Your task to perform on an android device: toggle show notifications on the lock screen Image 0: 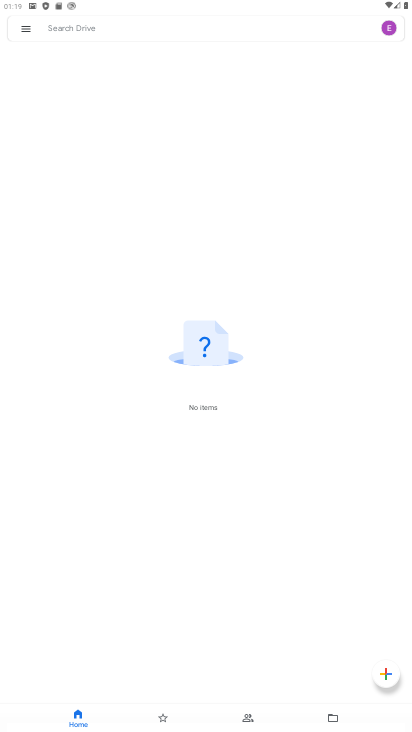
Step 0: press home button
Your task to perform on an android device: toggle show notifications on the lock screen Image 1: 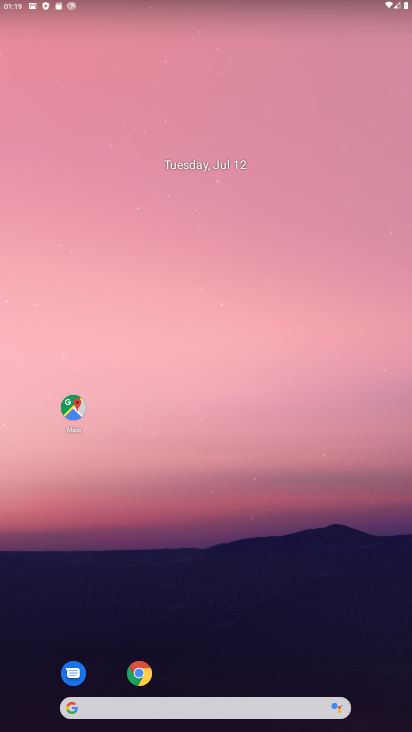
Step 1: drag from (235, 648) to (207, 35)
Your task to perform on an android device: toggle show notifications on the lock screen Image 2: 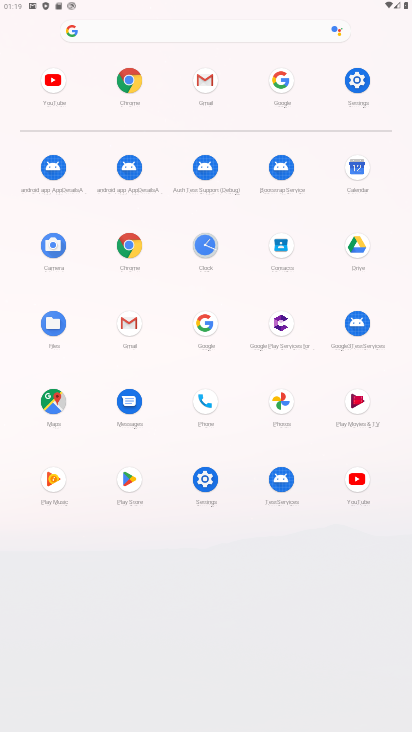
Step 2: click (359, 82)
Your task to perform on an android device: toggle show notifications on the lock screen Image 3: 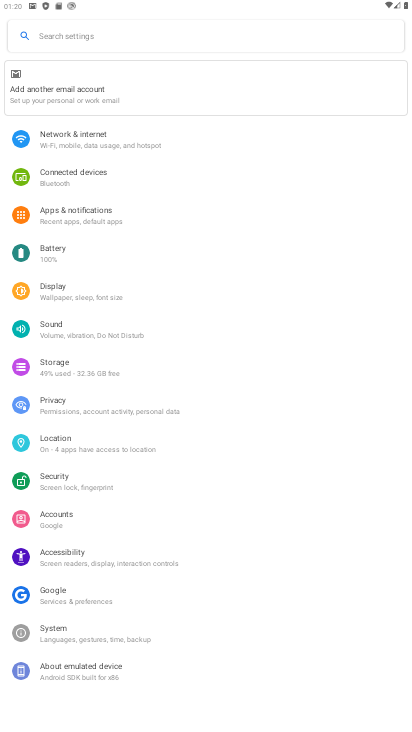
Step 3: click (90, 222)
Your task to perform on an android device: toggle show notifications on the lock screen Image 4: 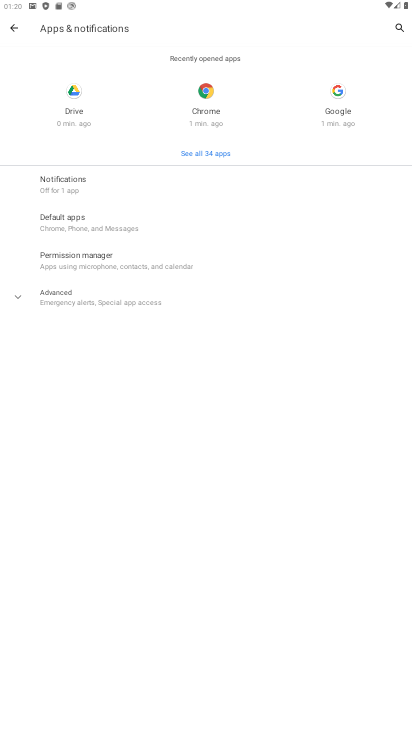
Step 4: click (103, 185)
Your task to perform on an android device: toggle show notifications on the lock screen Image 5: 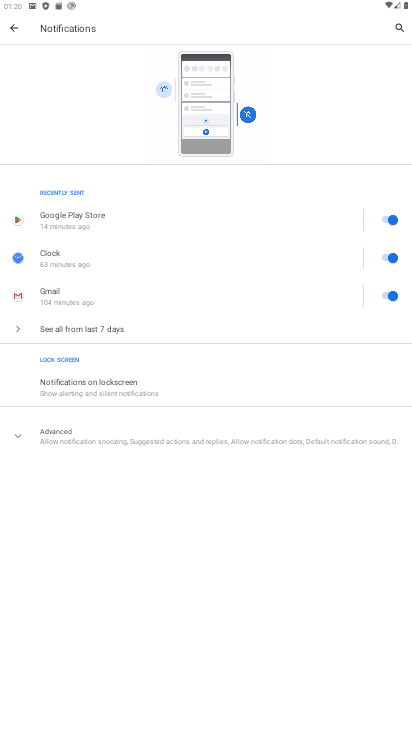
Step 5: click (120, 386)
Your task to perform on an android device: toggle show notifications on the lock screen Image 6: 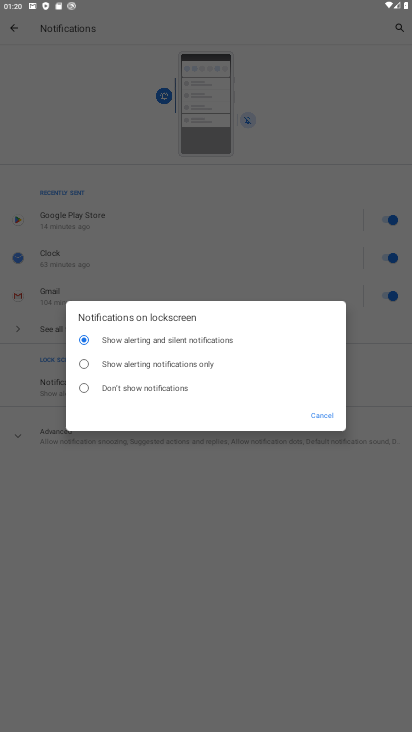
Step 6: click (319, 414)
Your task to perform on an android device: toggle show notifications on the lock screen Image 7: 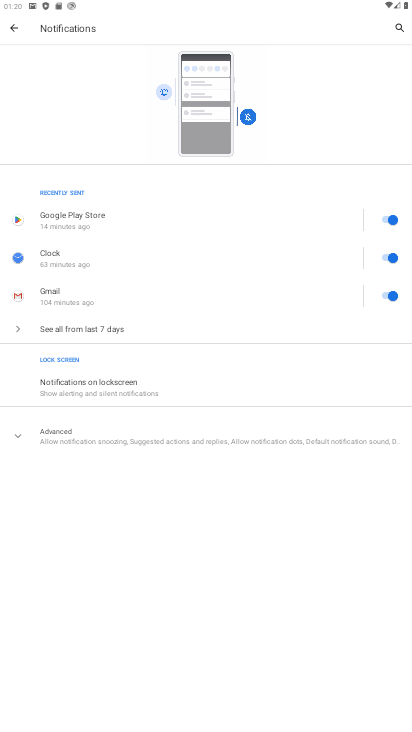
Step 7: click (95, 388)
Your task to perform on an android device: toggle show notifications on the lock screen Image 8: 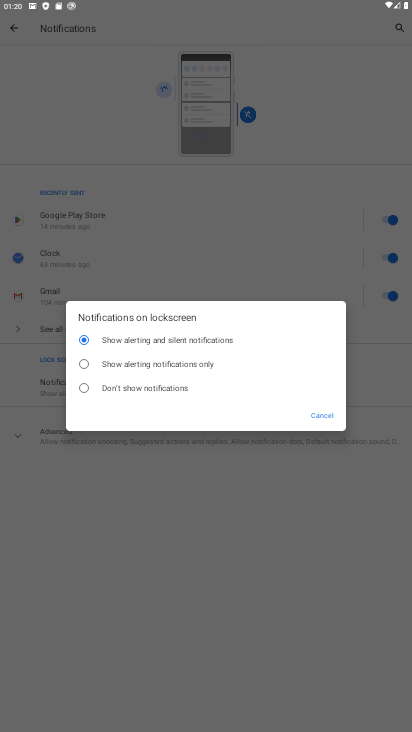
Step 8: click (88, 389)
Your task to perform on an android device: toggle show notifications on the lock screen Image 9: 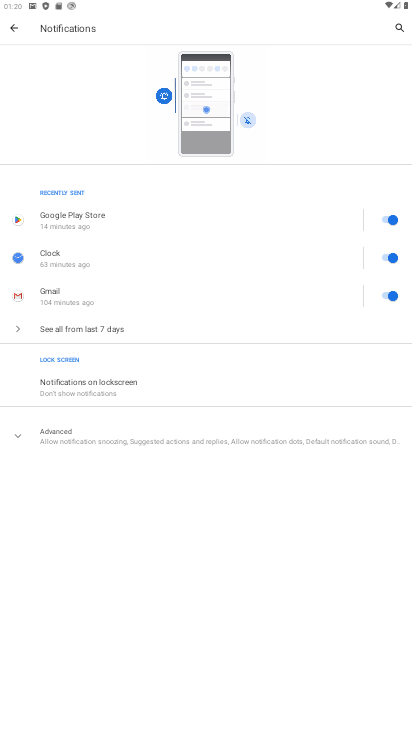
Step 9: task complete